Your task to perform on an android device: Open Maps and search for coffee Image 0: 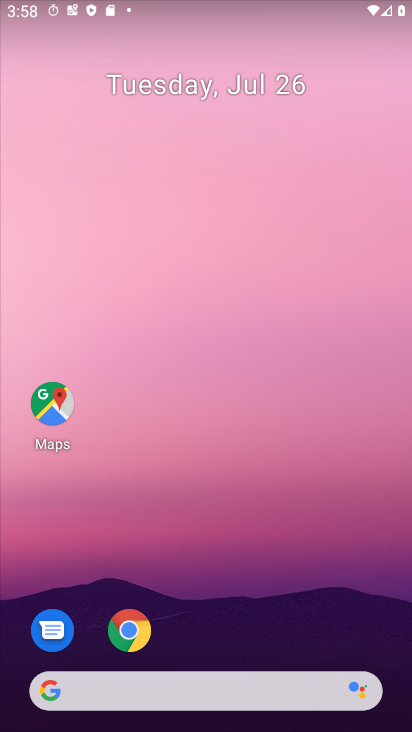
Step 0: drag from (230, 635) to (151, 80)
Your task to perform on an android device: Open Maps and search for coffee Image 1: 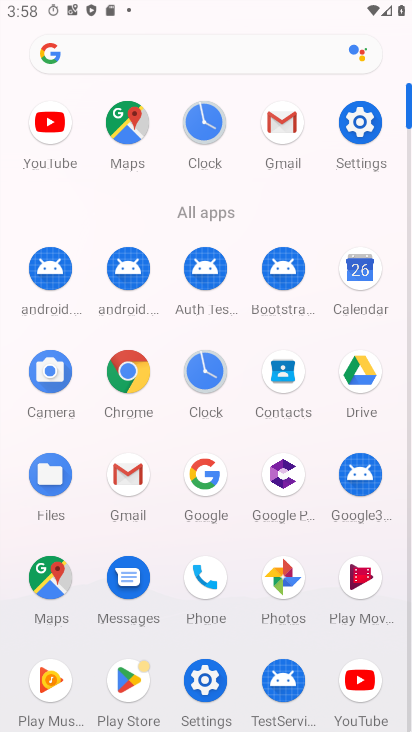
Step 1: click (112, 132)
Your task to perform on an android device: Open Maps and search for coffee Image 2: 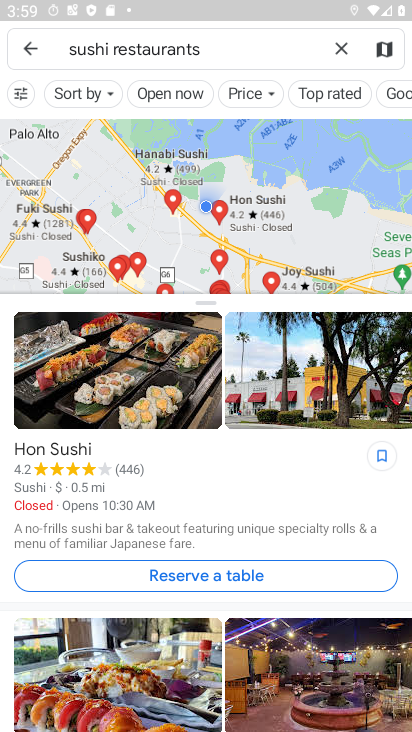
Step 2: click (346, 49)
Your task to perform on an android device: Open Maps and search for coffee Image 3: 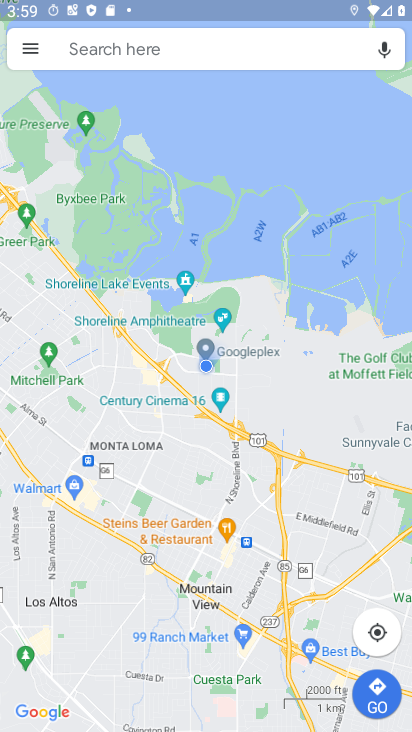
Step 3: click (250, 59)
Your task to perform on an android device: Open Maps and search for coffee Image 4: 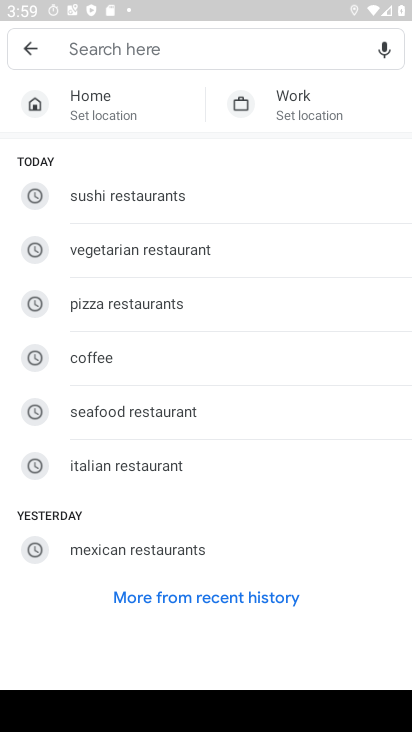
Step 4: type "coffee"
Your task to perform on an android device: Open Maps and search for coffee Image 5: 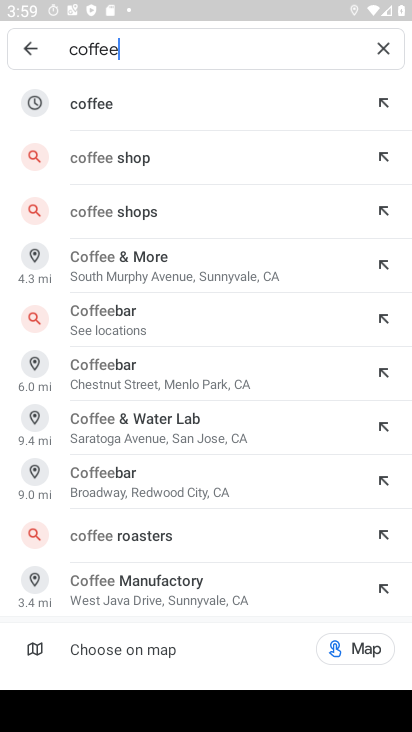
Step 5: click (162, 108)
Your task to perform on an android device: Open Maps and search for coffee Image 6: 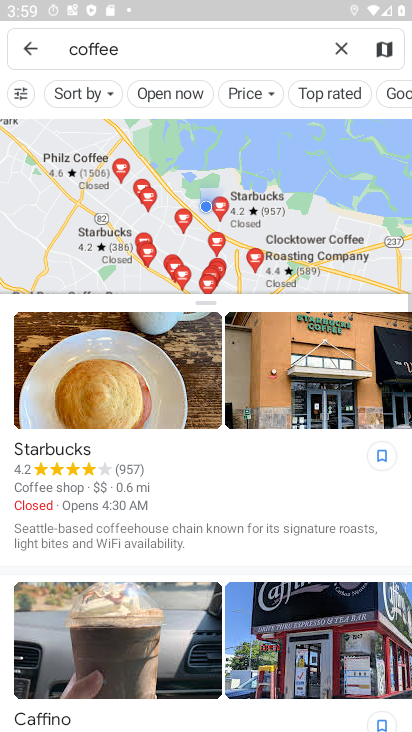
Step 6: task complete